Your task to perform on an android device: What's the news this month? Image 0: 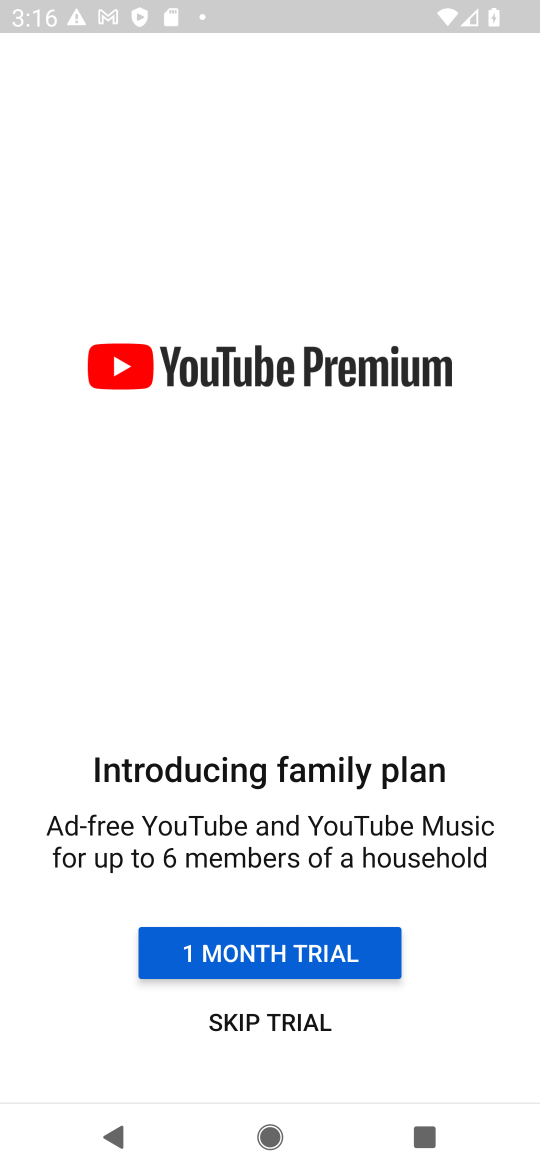
Step 0: press home button
Your task to perform on an android device: What's the news this month? Image 1: 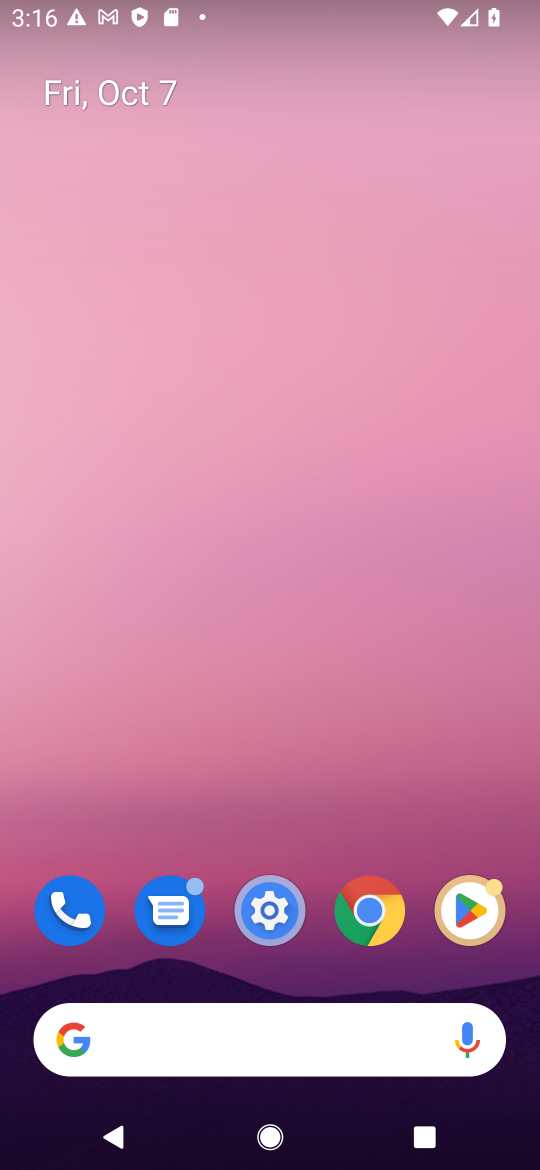
Step 1: click (186, 1033)
Your task to perform on an android device: What's the news this month? Image 2: 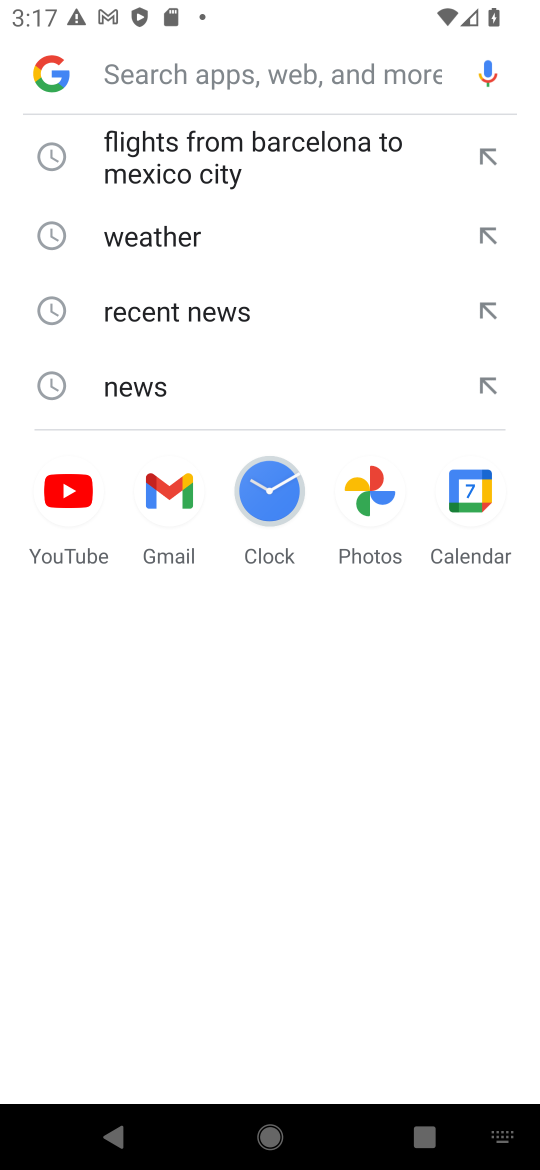
Step 2: type "the news this month?"
Your task to perform on an android device: What's the news this month? Image 3: 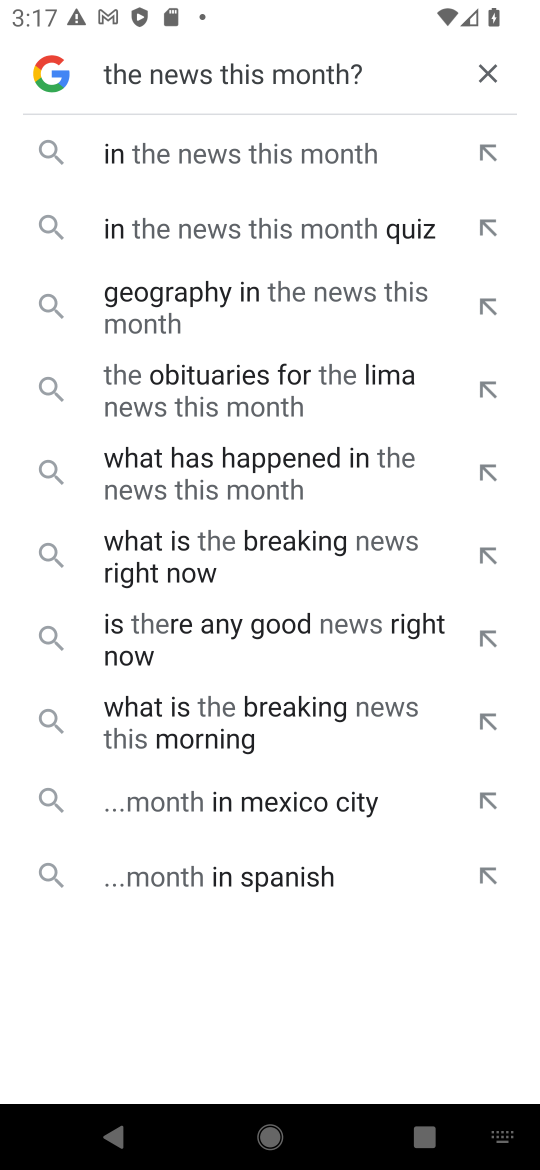
Step 3: click (327, 158)
Your task to perform on an android device: What's the news this month? Image 4: 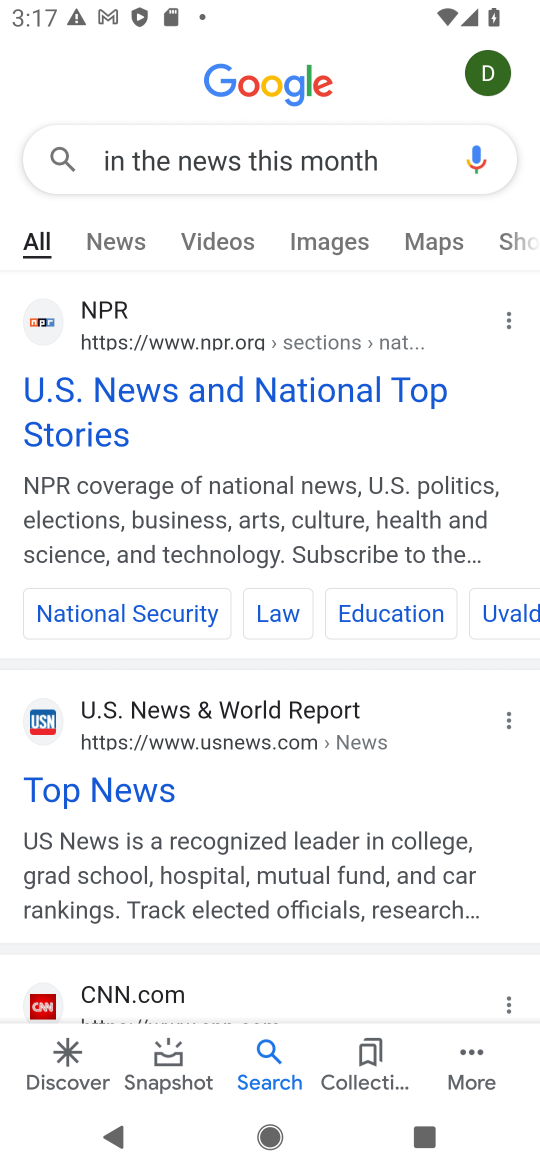
Step 4: click (84, 401)
Your task to perform on an android device: What's the news this month? Image 5: 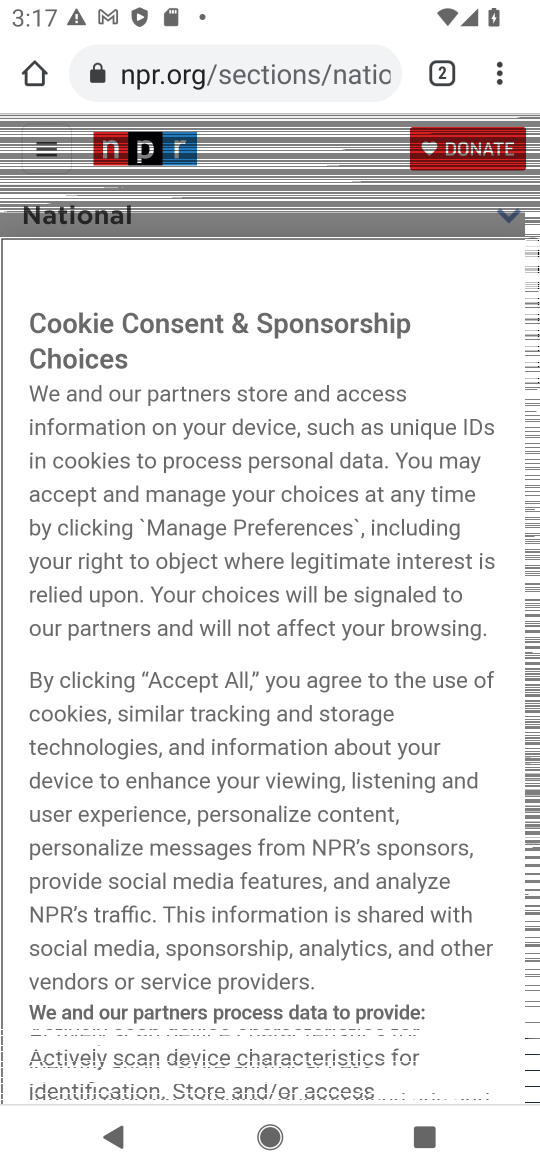
Step 5: press back button
Your task to perform on an android device: What's the news this month? Image 6: 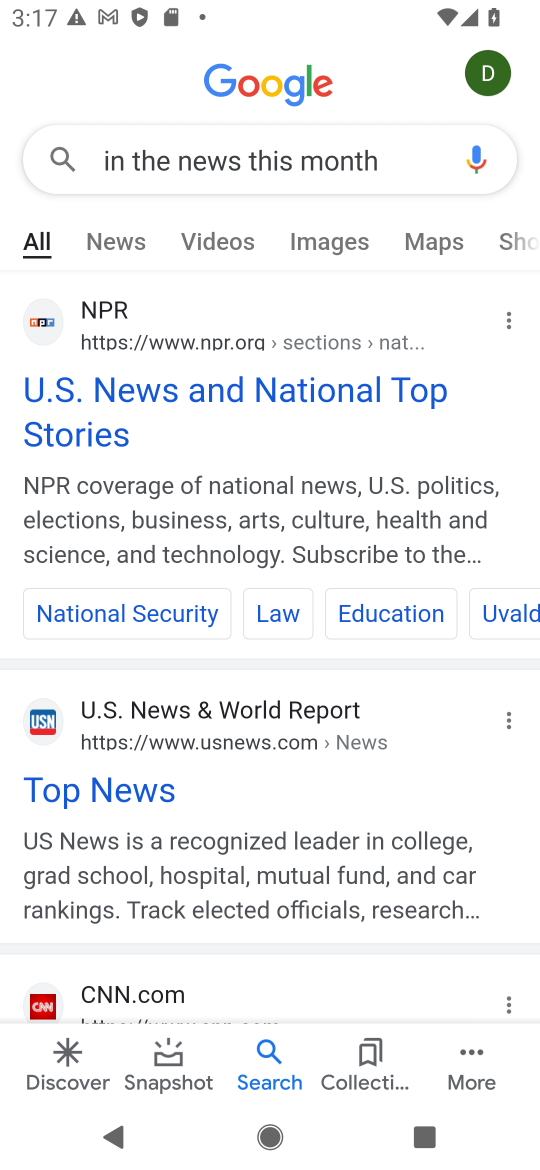
Step 6: click (110, 236)
Your task to perform on an android device: What's the news this month? Image 7: 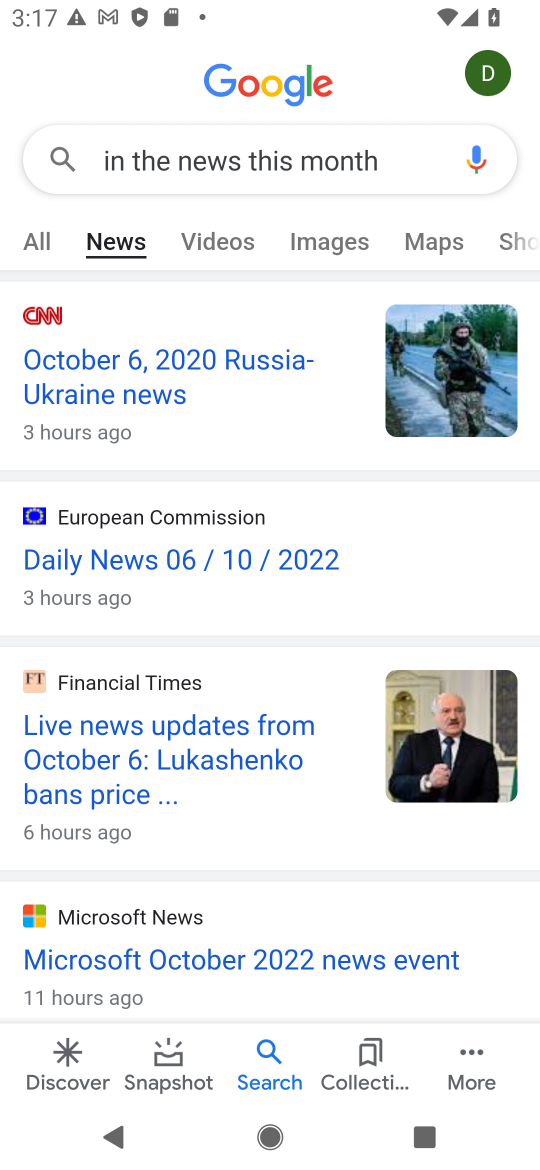
Step 7: drag from (352, 759) to (108, 235)
Your task to perform on an android device: What's the news this month? Image 8: 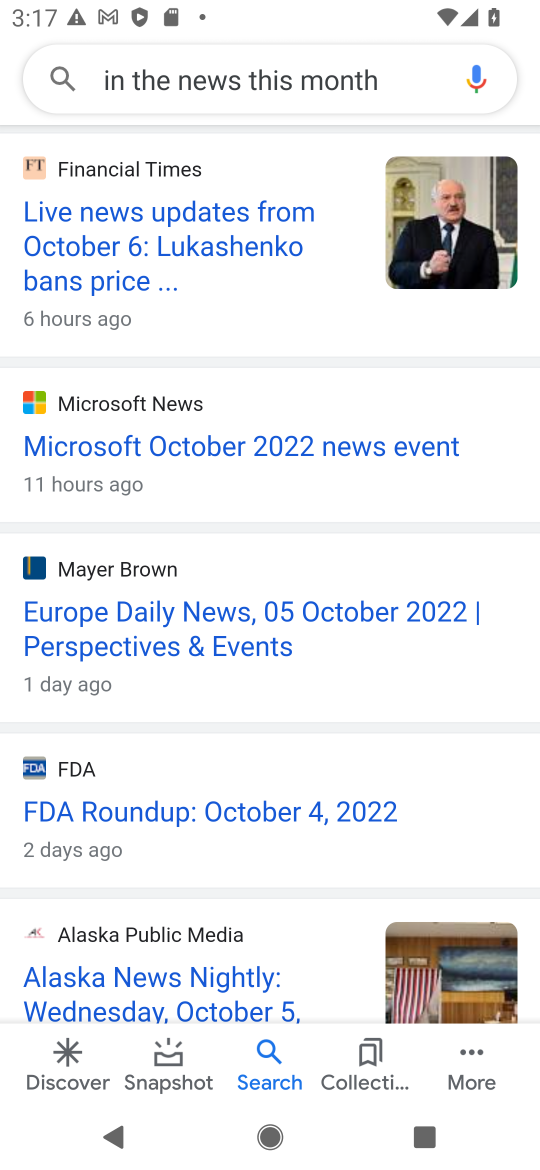
Step 8: drag from (338, 743) to (400, 605)
Your task to perform on an android device: What's the news this month? Image 9: 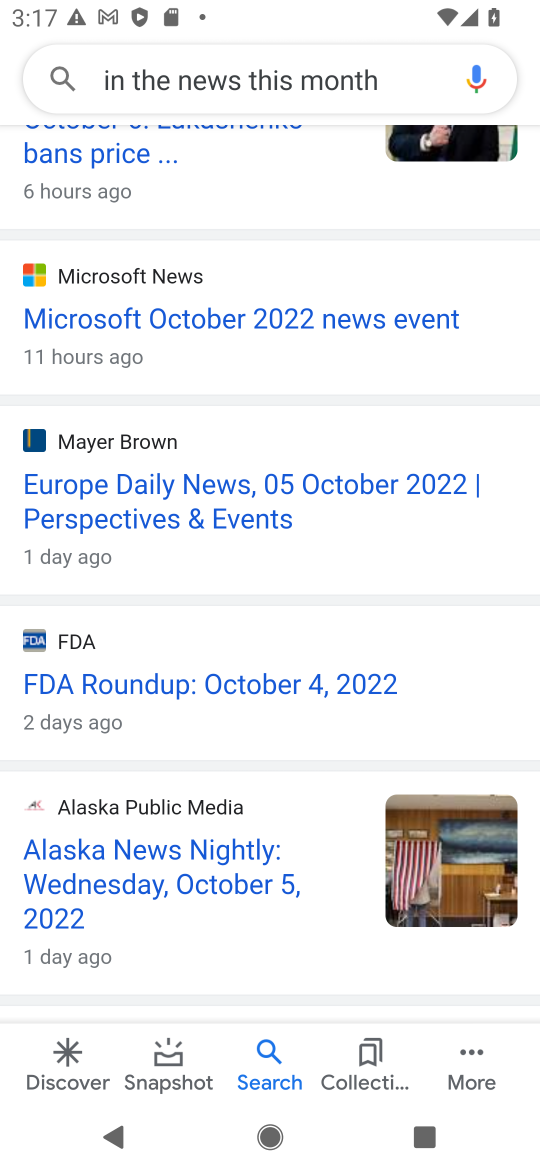
Step 9: drag from (242, 852) to (302, 509)
Your task to perform on an android device: What's the news this month? Image 10: 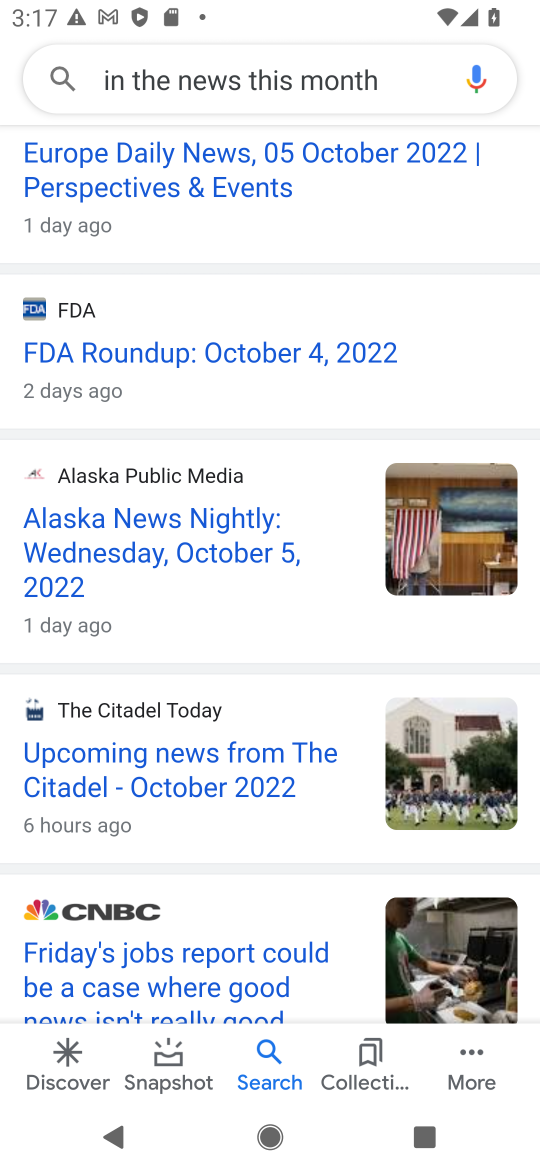
Step 10: click (279, 566)
Your task to perform on an android device: What's the news this month? Image 11: 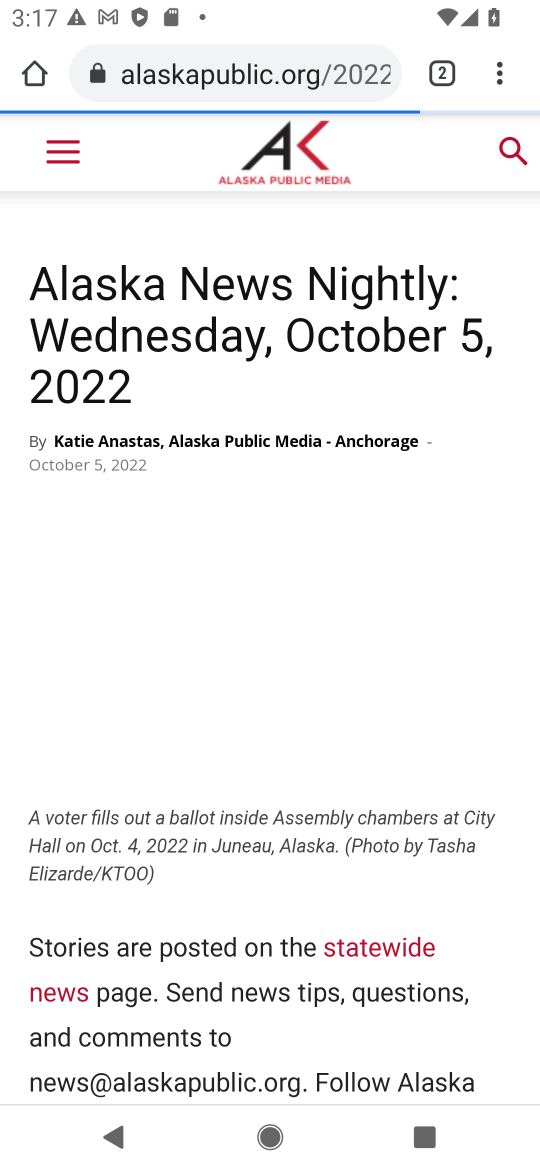
Step 11: task complete